Your task to perform on an android device: Go to Google Image 0: 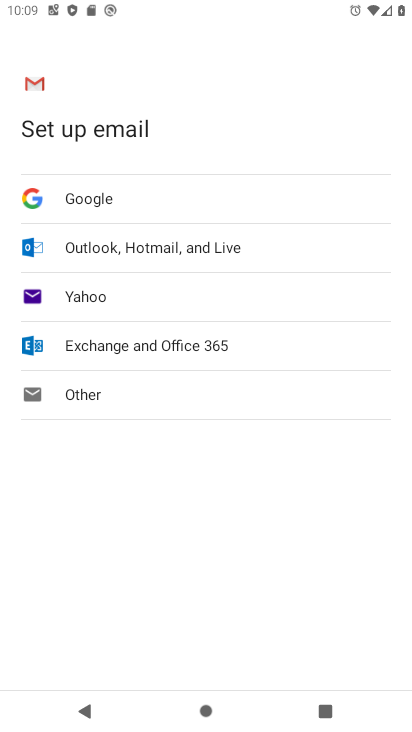
Step 0: press back button
Your task to perform on an android device: Go to Google Image 1: 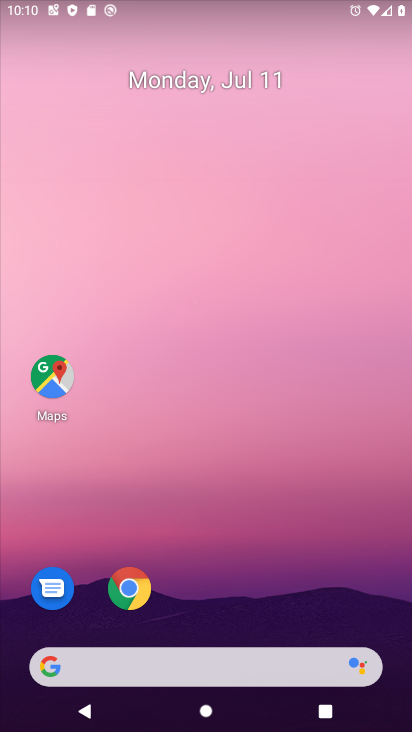
Step 1: drag from (256, 388) to (301, 38)
Your task to perform on an android device: Go to Google Image 2: 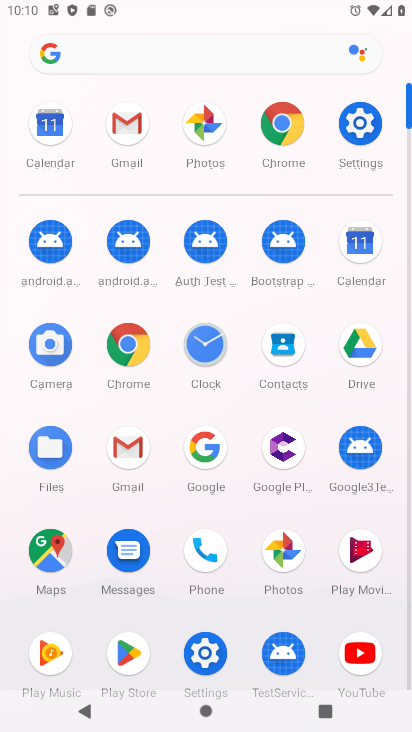
Step 2: click (204, 447)
Your task to perform on an android device: Go to Google Image 3: 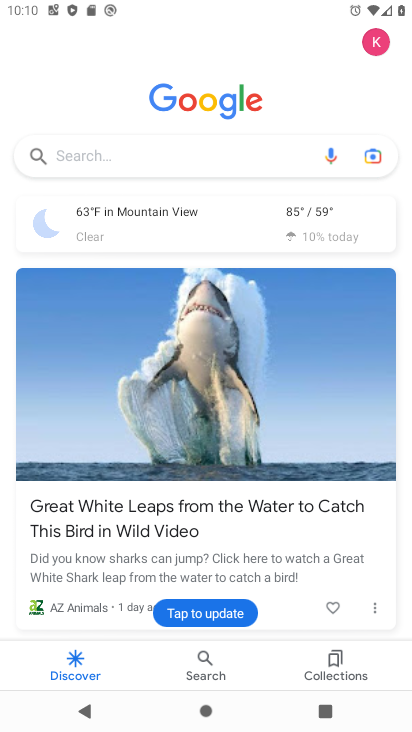
Step 3: task complete